Your task to perform on an android device: add a label to a message in the gmail app Image 0: 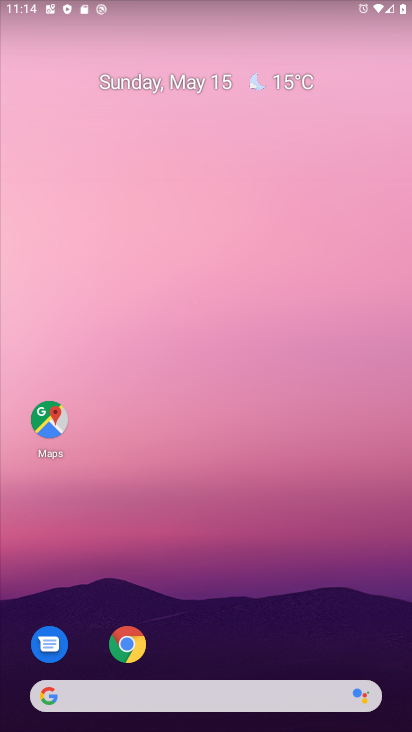
Step 0: drag from (265, 539) to (237, 52)
Your task to perform on an android device: add a label to a message in the gmail app Image 1: 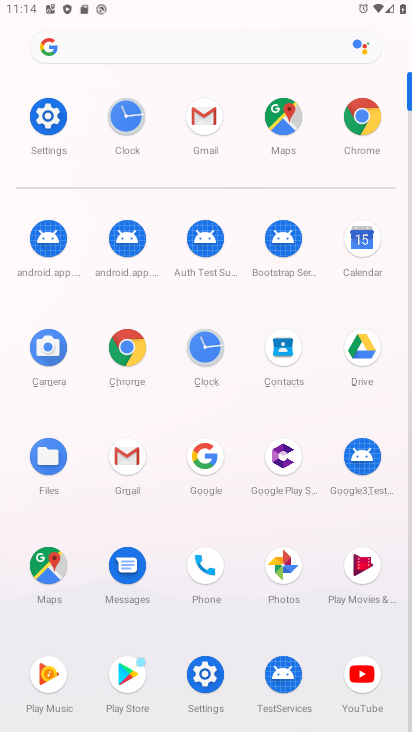
Step 1: click (206, 128)
Your task to perform on an android device: add a label to a message in the gmail app Image 2: 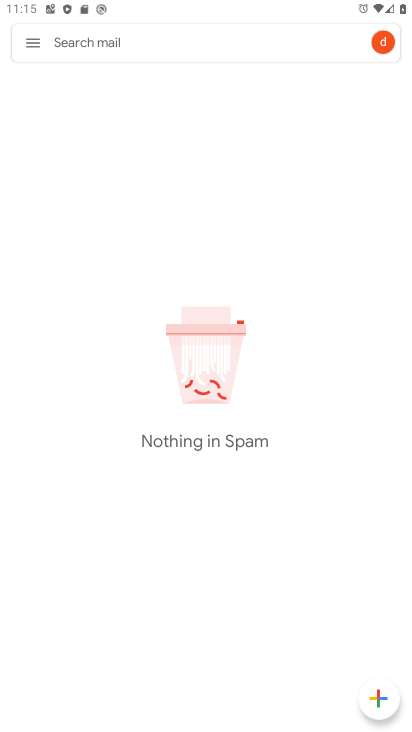
Step 2: task complete